Your task to perform on an android device: Go to Android settings Image 0: 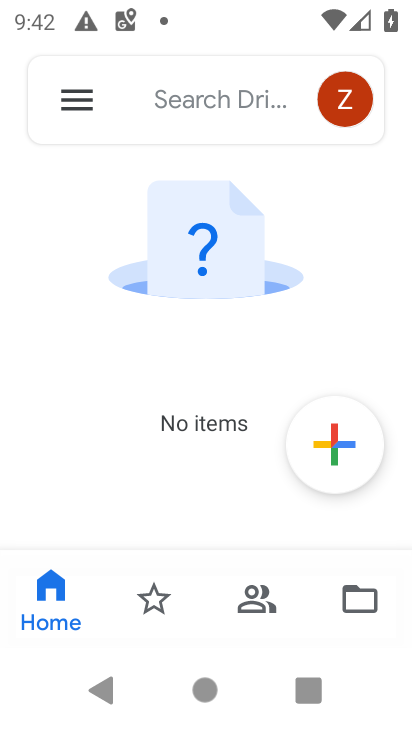
Step 0: press home button
Your task to perform on an android device: Go to Android settings Image 1: 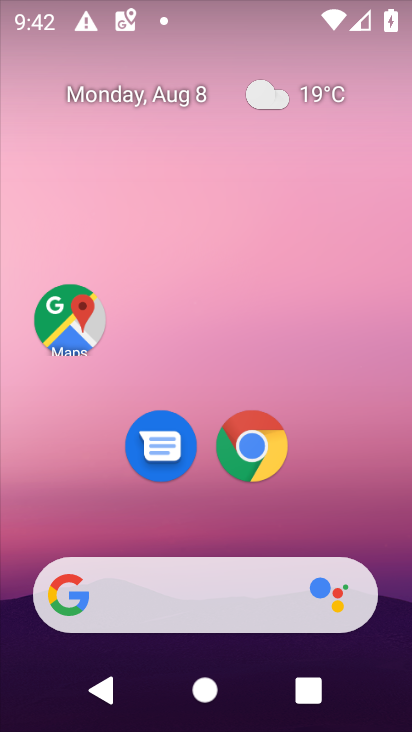
Step 1: drag from (390, 582) to (336, 64)
Your task to perform on an android device: Go to Android settings Image 2: 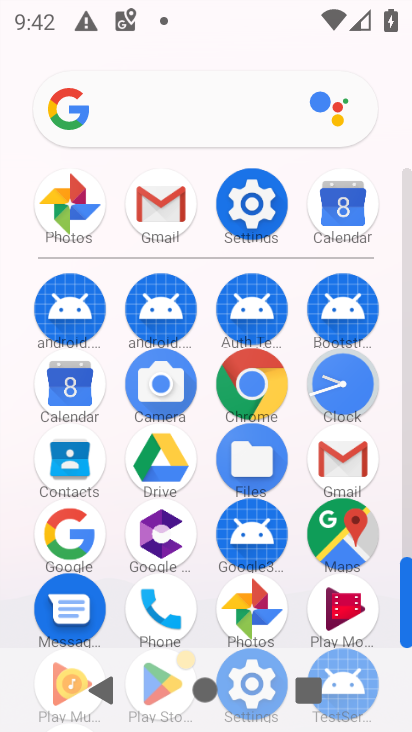
Step 2: click (405, 541)
Your task to perform on an android device: Go to Android settings Image 3: 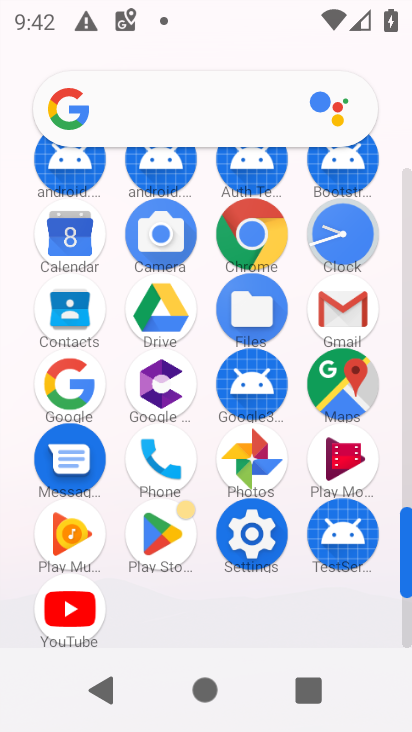
Step 3: click (246, 535)
Your task to perform on an android device: Go to Android settings Image 4: 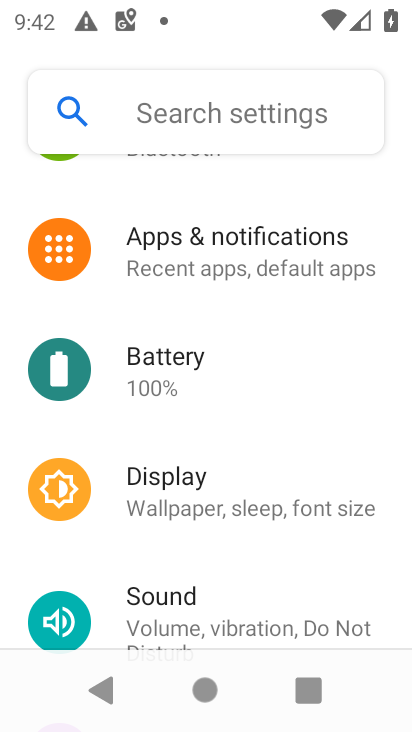
Step 4: drag from (301, 615) to (303, 216)
Your task to perform on an android device: Go to Android settings Image 5: 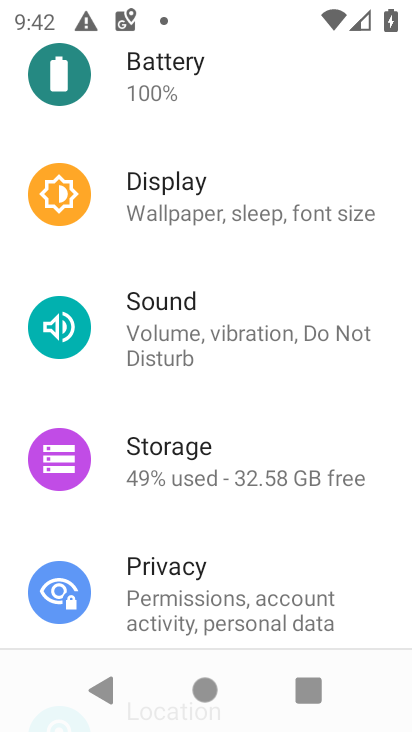
Step 5: drag from (305, 549) to (302, 222)
Your task to perform on an android device: Go to Android settings Image 6: 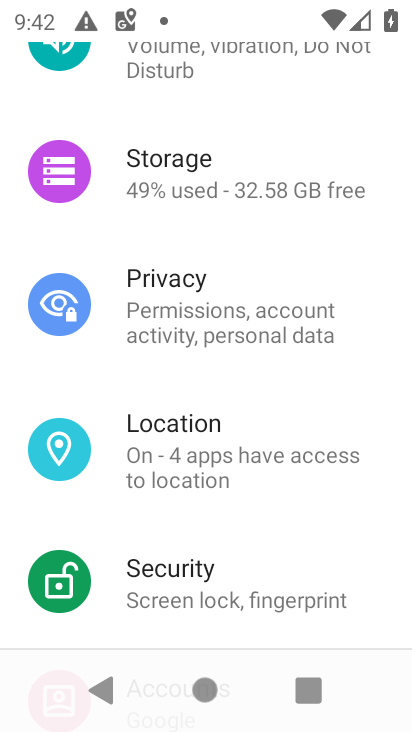
Step 6: drag from (292, 530) to (300, 202)
Your task to perform on an android device: Go to Android settings Image 7: 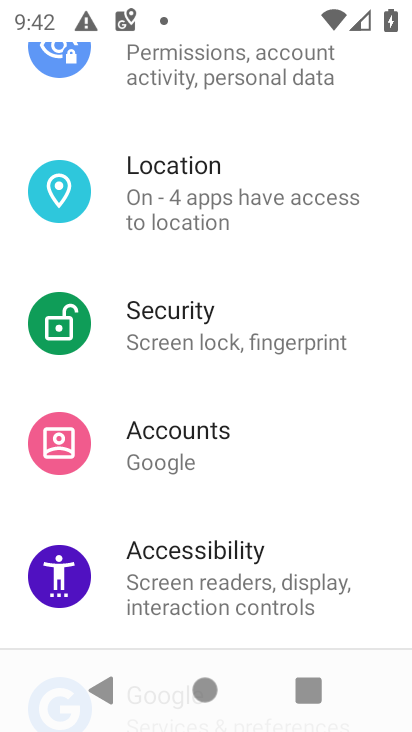
Step 7: drag from (319, 539) to (302, 132)
Your task to perform on an android device: Go to Android settings Image 8: 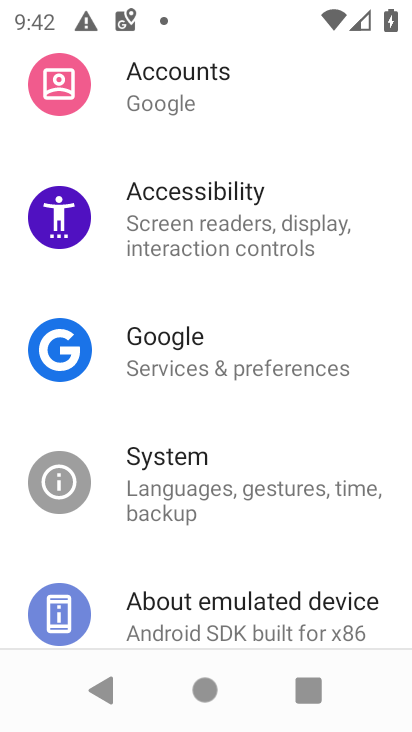
Step 8: drag from (272, 558) to (283, 312)
Your task to perform on an android device: Go to Android settings Image 9: 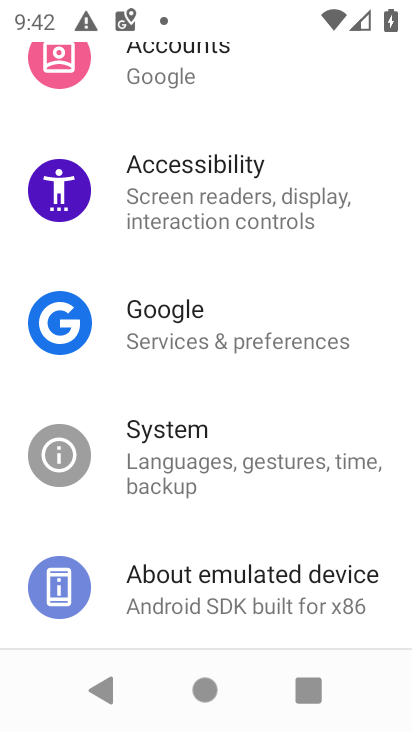
Step 9: click (171, 567)
Your task to perform on an android device: Go to Android settings Image 10: 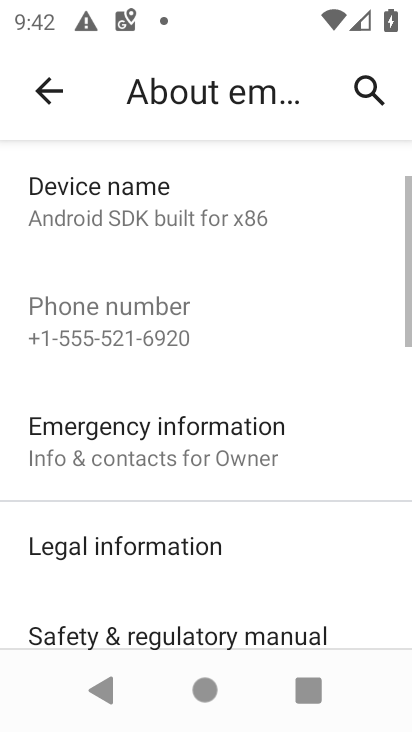
Step 10: task complete